Your task to perform on an android device: Turn off the flashlight Image 0: 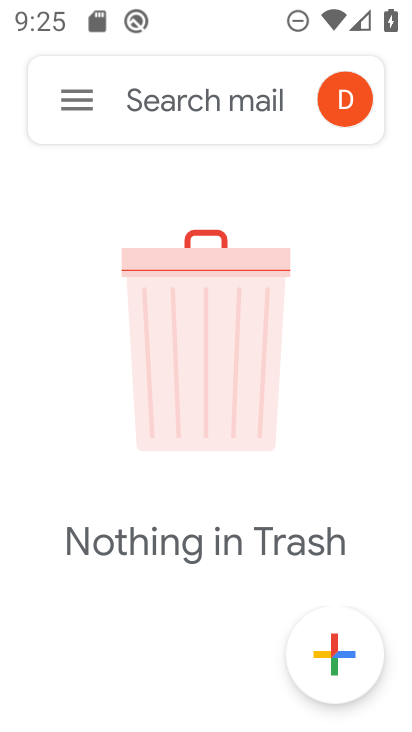
Step 0: press home button
Your task to perform on an android device: Turn off the flashlight Image 1: 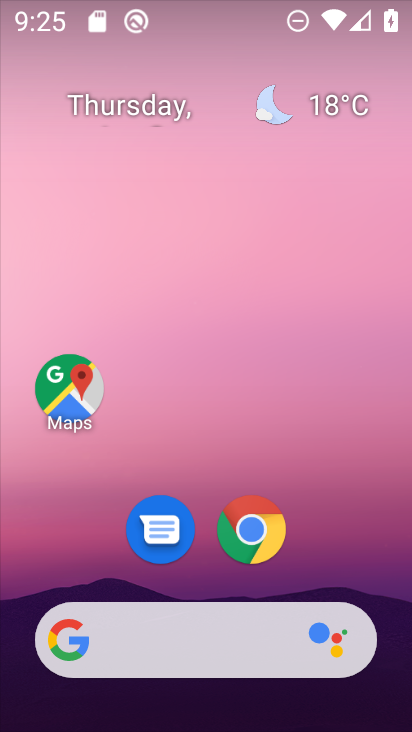
Step 1: drag from (385, 697) to (322, 164)
Your task to perform on an android device: Turn off the flashlight Image 2: 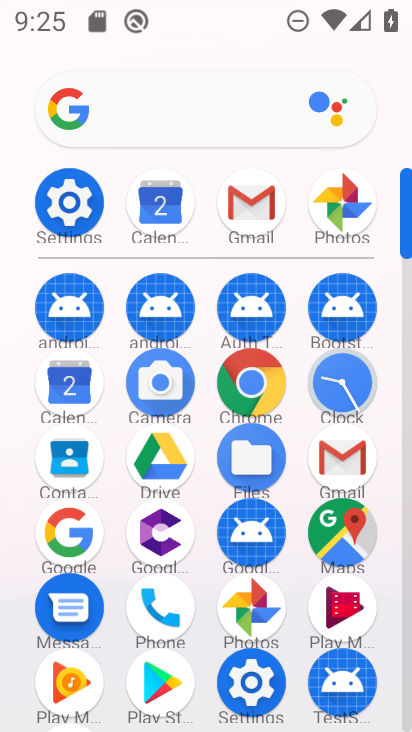
Step 2: click (47, 209)
Your task to perform on an android device: Turn off the flashlight Image 3: 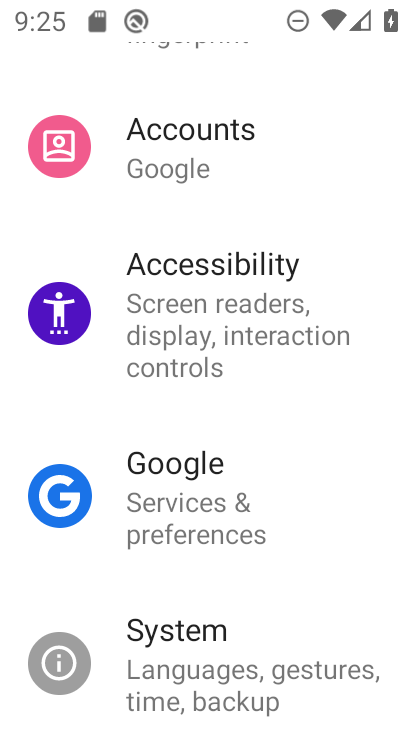
Step 3: drag from (254, 165) to (283, 596)
Your task to perform on an android device: Turn off the flashlight Image 4: 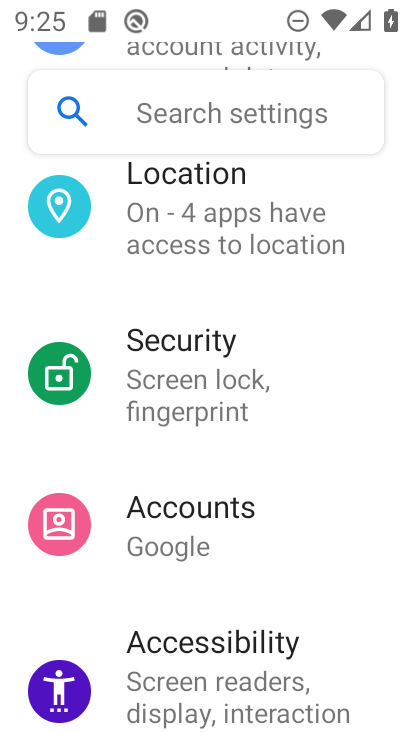
Step 4: drag from (277, 267) to (307, 601)
Your task to perform on an android device: Turn off the flashlight Image 5: 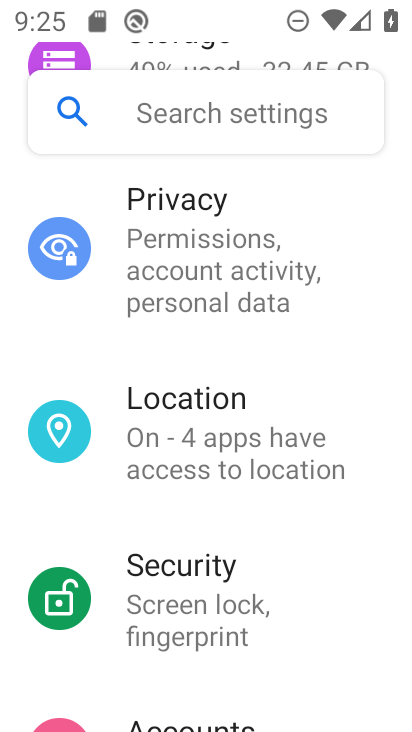
Step 5: drag from (236, 279) to (253, 541)
Your task to perform on an android device: Turn off the flashlight Image 6: 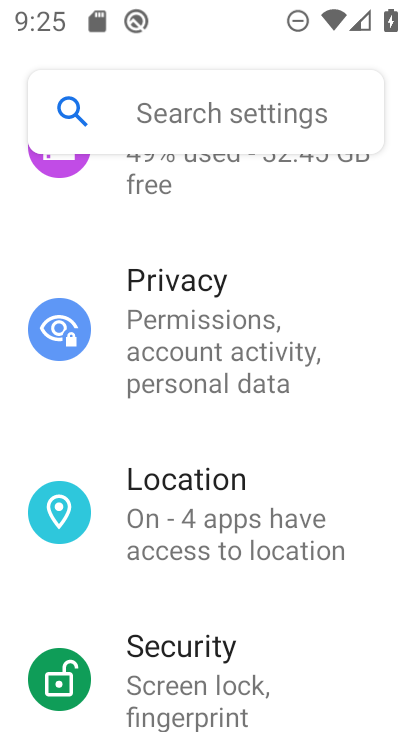
Step 6: drag from (257, 370) to (256, 574)
Your task to perform on an android device: Turn off the flashlight Image 7: 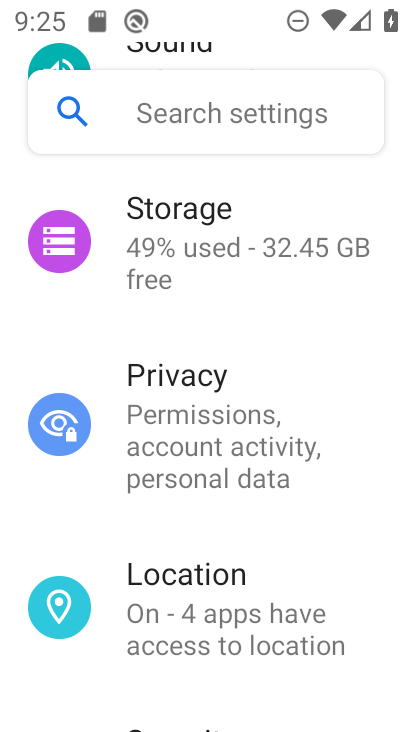
Step 7: drag from (209, 329) to (243, 658)
Your task to perform on an android device: Turn off the flashlight Image 8: 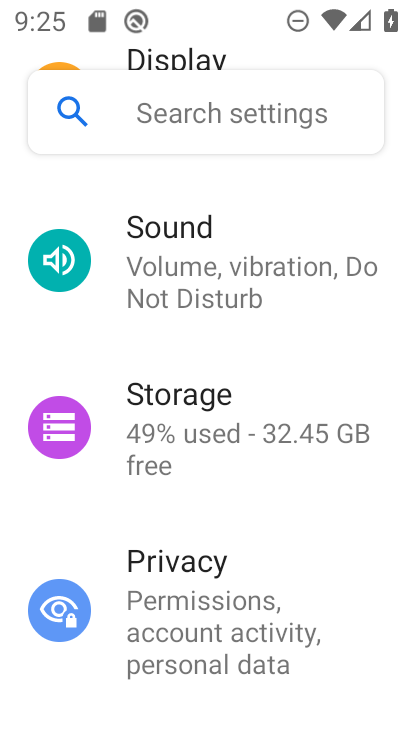
Step 8: click (188, 50)
Your task to perform on an android device: Turn off the flashlight Image 9: 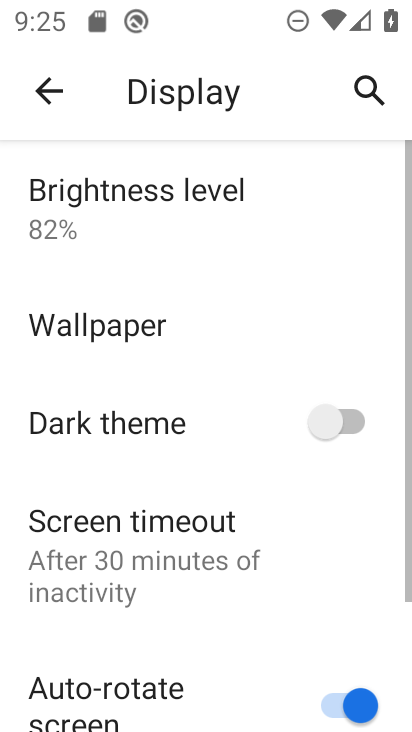
Step 9: task complete